Your task to perform on an android device: set the stopwatch Image 0: 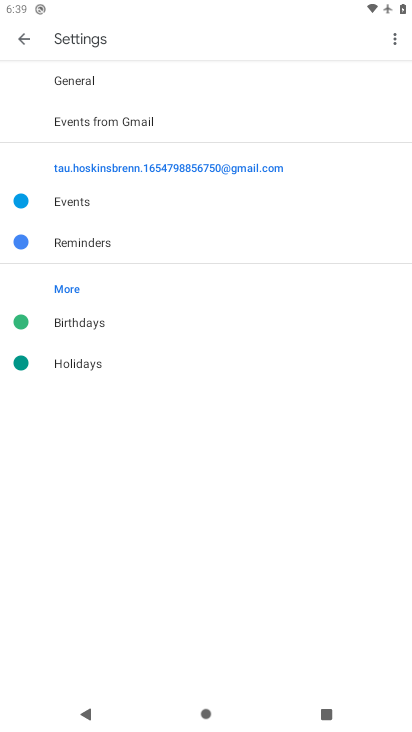
Step 0: press home button
Your task to perform on an android device: set the stopwatch Image 1: 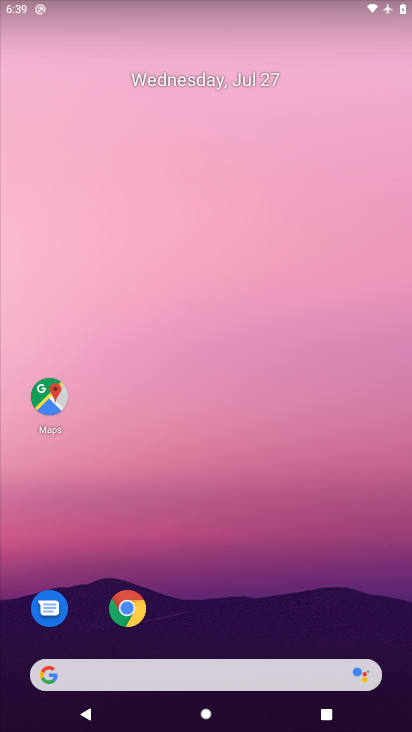
Step 1: drag from (223, 637) to (197, 445)
Your task to perform on an android device: set the stopwatch Image 2: 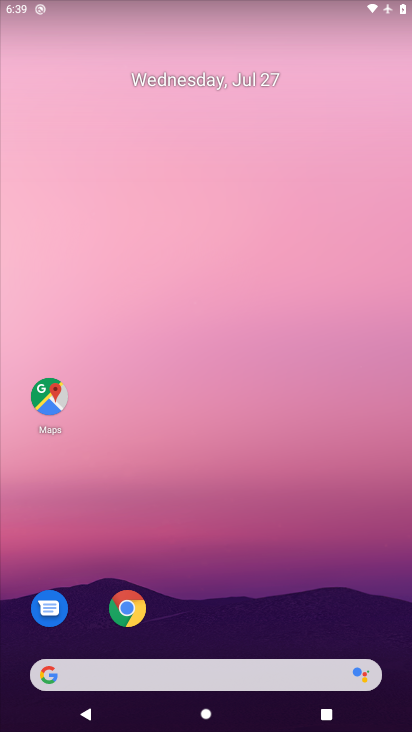
Step 2: drag from (242, 642) to (160, 10)
Your task to perform on an android device: set the stopwatch Image 3: 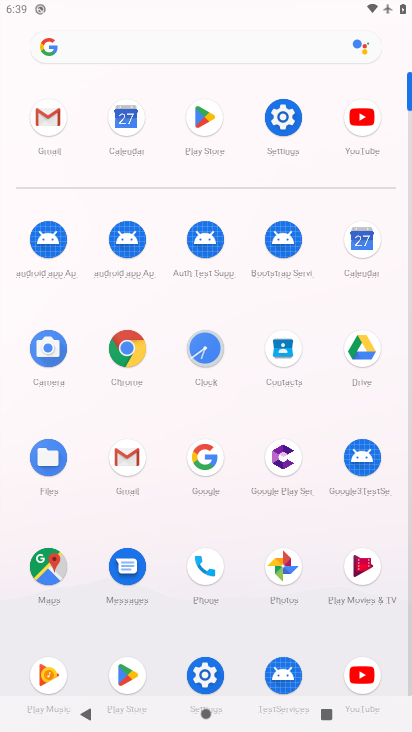
Step 3: click (204, 351)
Your task to perform on an android device: set the stopwatch Image 4: 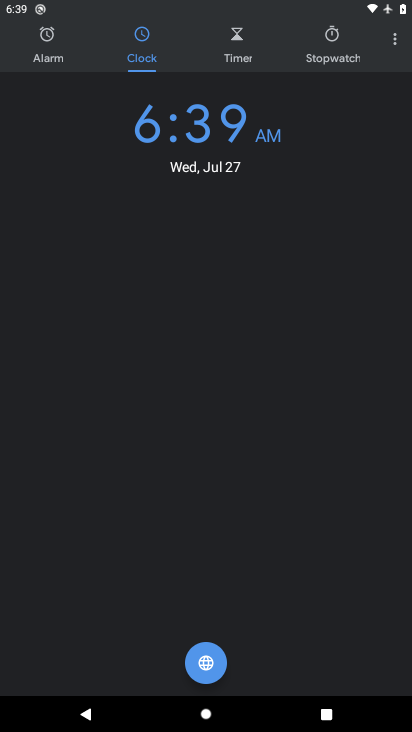
Step 4: click (331, 40)
Your task to perform on an android device: set the stopwatch Image 5: 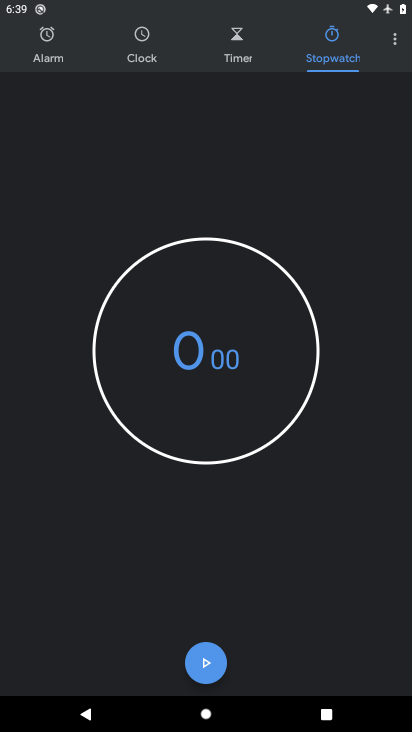
Step 5: click (203, 662)
Your task to perform on an android device: set the stopwatch Image 6: 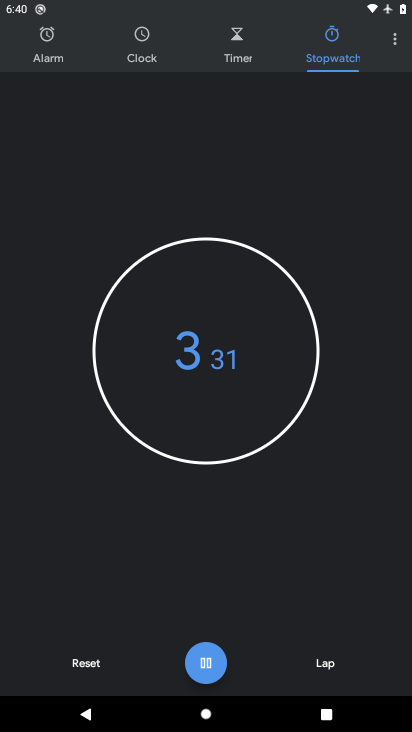
Step 6: task complete